Your task to perform on an android device: turn on priority inbox in the gmail app Image 0: 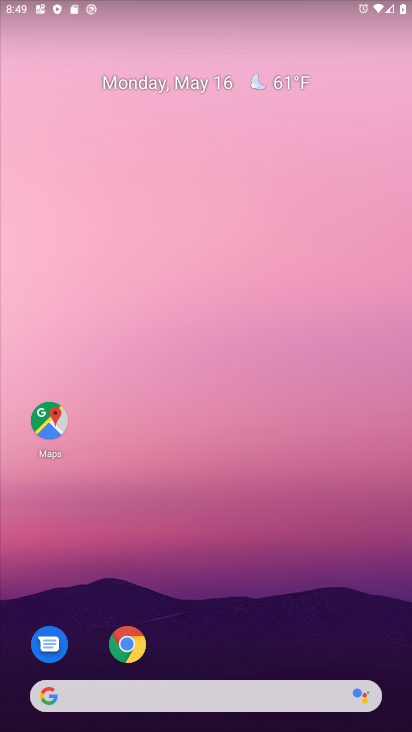
Step 0: drag from (219, 621) to (250, 127)
Your task to perform on an android device: turn on priority inbox in the gmail app Image 1: 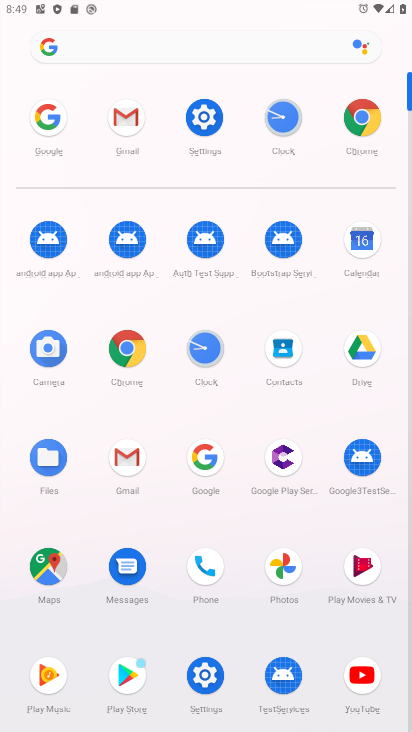
Step 1: click (130, 118)
Your task to perform on an android device: turn on priority inbox in the gmail app Image 2: 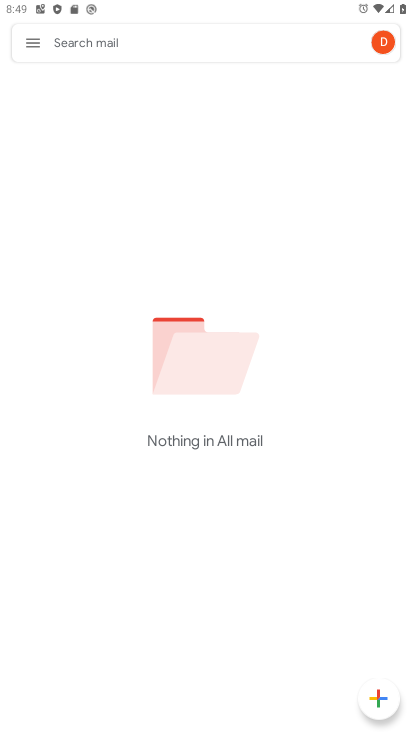
Step 2: click (27, 37)
Your task to perform on an android device: turn on priority inbox in the gmail app Image 3: 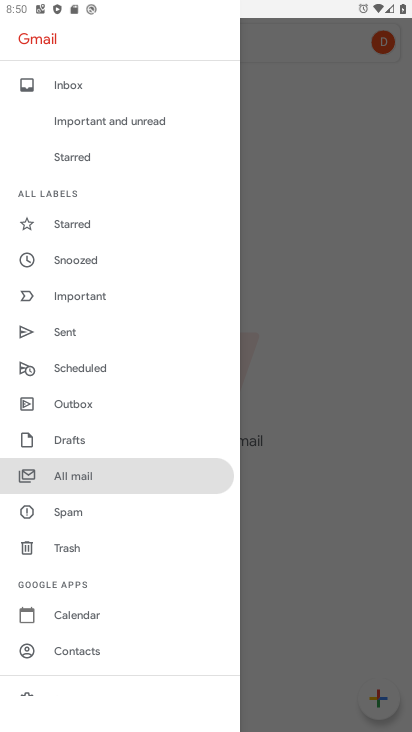
Step 3: drag from (90, 637) to (114, 297)
Your task to perform on an android device: turn on priority inbox in the gmail app Image 4: 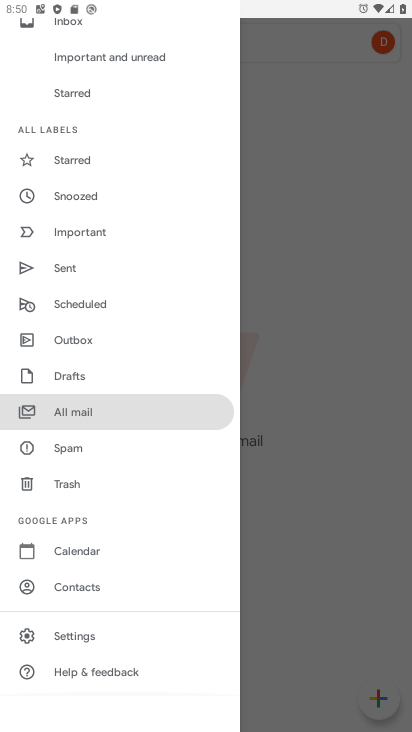
Step 4: click (56, 643)
Your task to perform on an android device: turn on priority inbox in the gmail app Image 5: 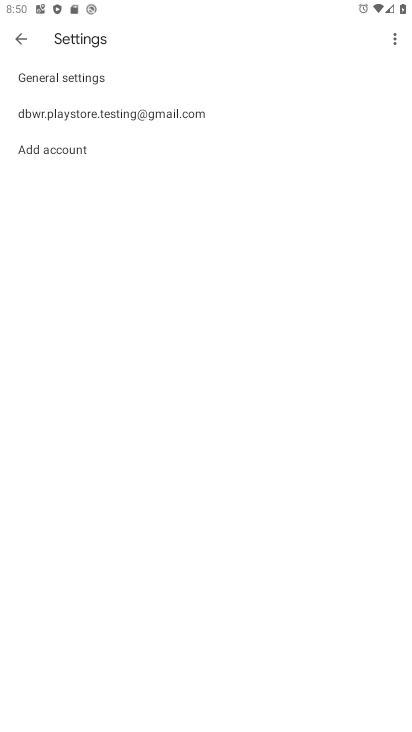
Step 5: click (65, 103)
Your task to perform on an android device: turn on priority inbox in the gmail app Image 6: 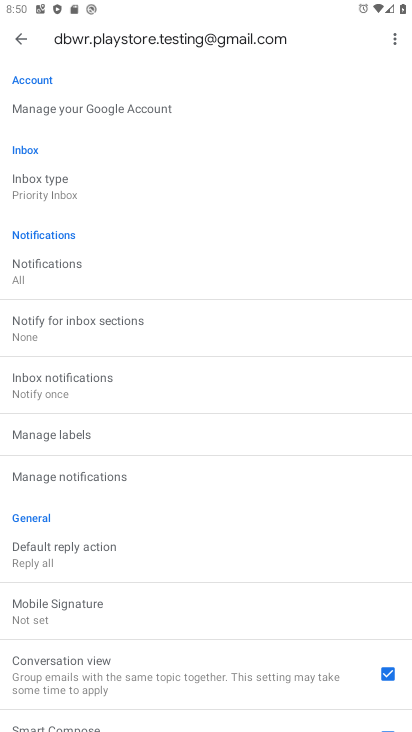
Step 6: task complete